Your task to perform on an android device: Search for pizza restaurants on Maps Image 0: 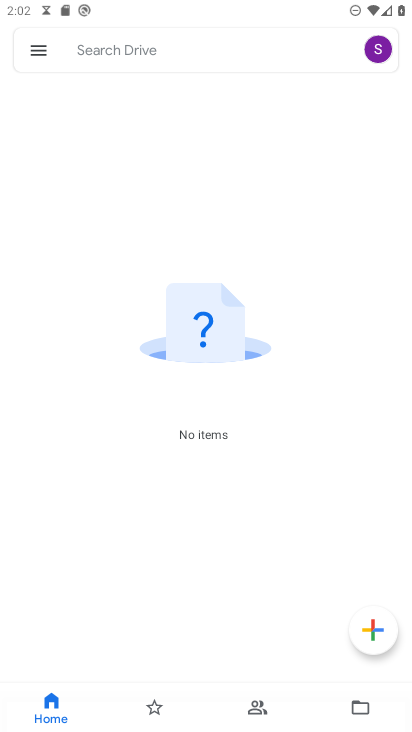
Step 0: press home button
Your task to perform on an android device: Search for pizza restaurants on Maps Image 1: 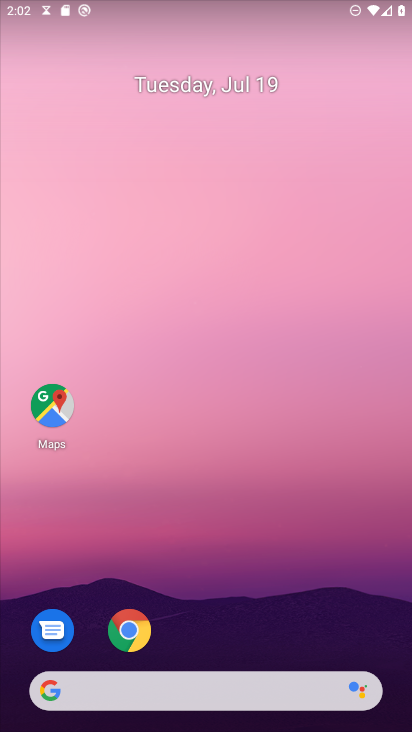
Step 1: click (61, 409)
Your task to perform on an android device: Search for pizza restaurants on Maps Image 2: 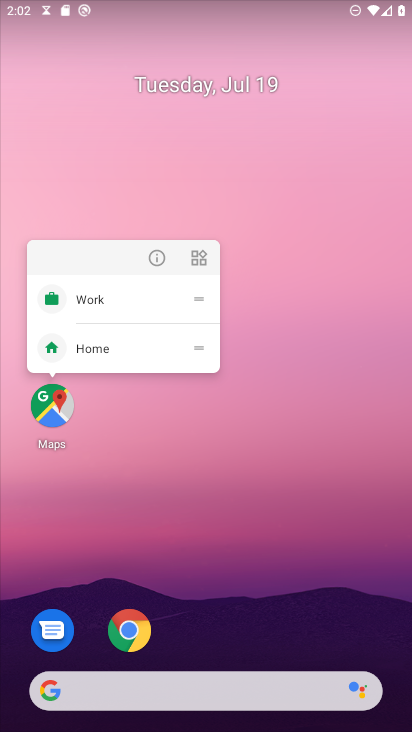
Step 2: click (39, 421)
Your task to perform on an android device: Search for pizza restaurants on Maps Image 3: 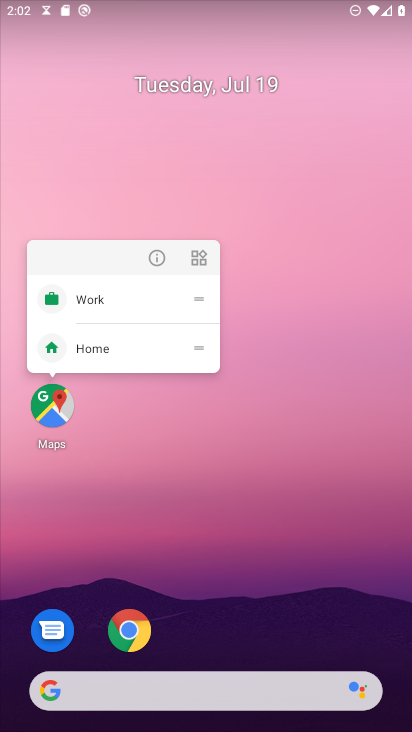
Step 3: click (57, 410)
Your task to perform on an android device: Search for pizza restaurants on Maps Image 4: 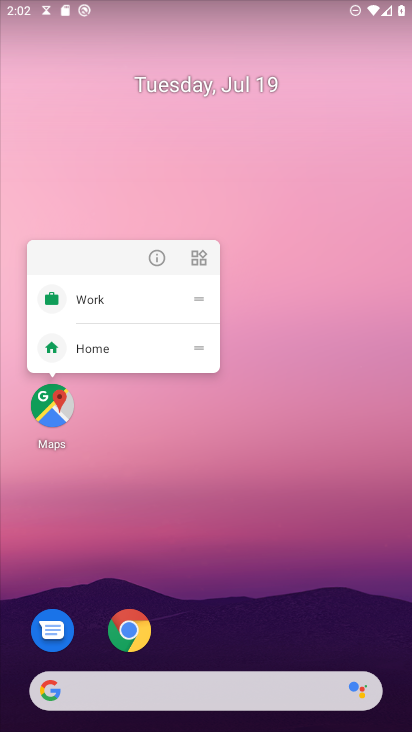
Step 4: click (44, 407)
Your task to perform on an android device: Search for pizza restaurants on Maps Image 5: 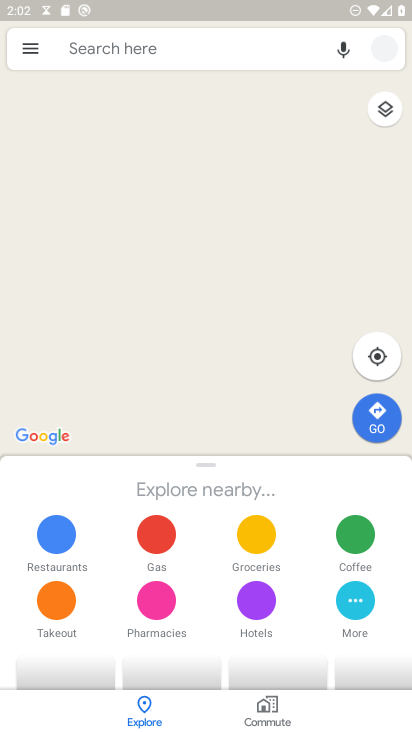
Step 5: click (162, 50)
Your task to perform on an android device: Search for pizza restaurants on Maps Image 6: 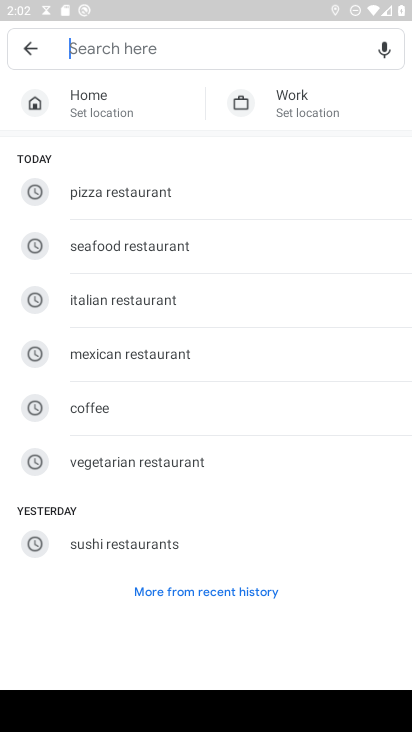
Step 6: click (118, 193)
Your task to perform on an android device: Search for pizza restaurants on Maps Image 7: 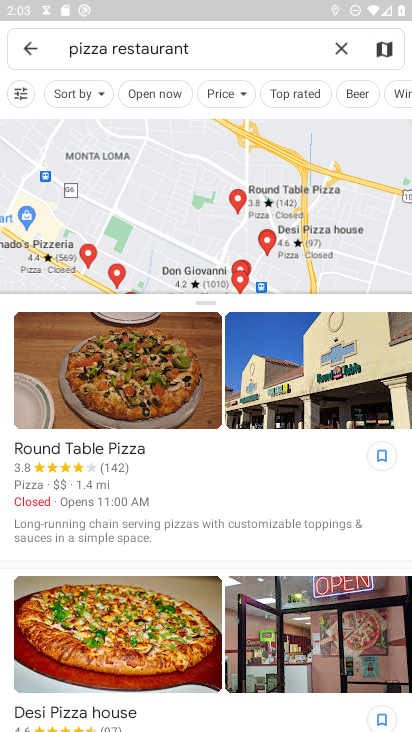
Step 7: task complete